Your task to perform on an android device: open chrome privacy settings Image 0: 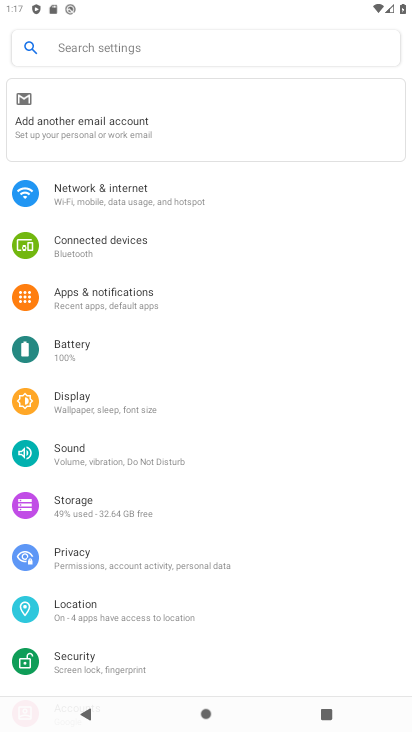
Step 0: click (61, 554)
Your task to perform on an android device: open chrome privacy settings Image 1: 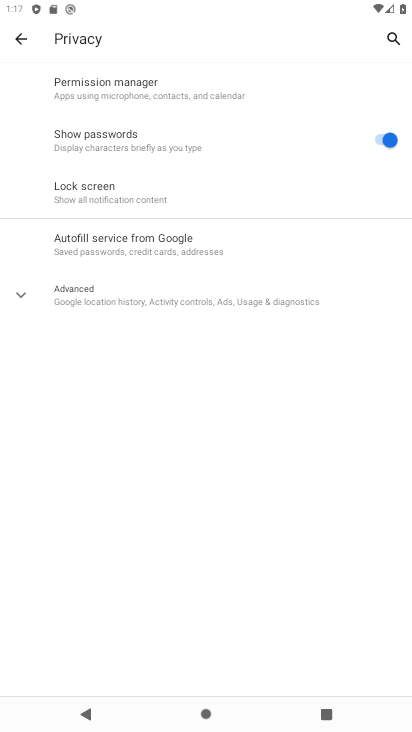
Step 1: press home button
Your task to perform on an android device: open chrome privacy settings Image 2: 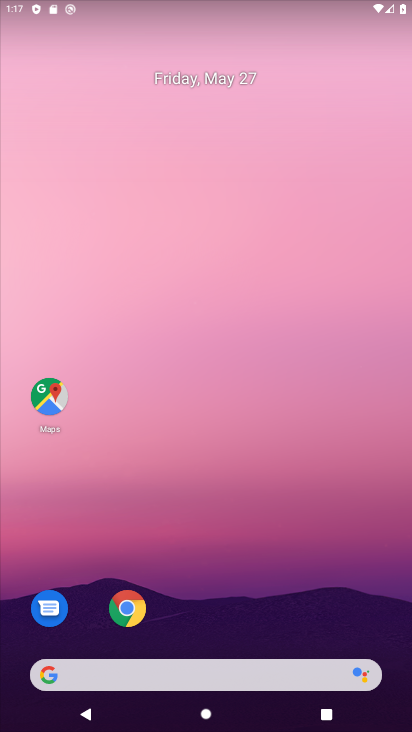
Step 2: click (128, 608)
Your task to perform on an android device: open chrome privacy settings Image 3: 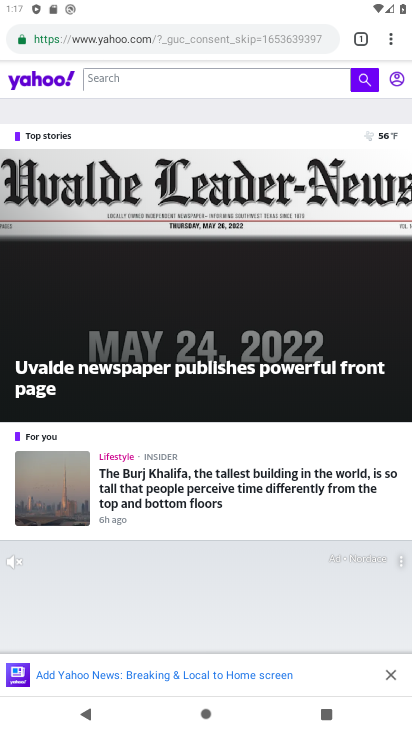
Step 3: click (388, 43)
Your task to perform on an android device: open chrome privacy settings Image 4: 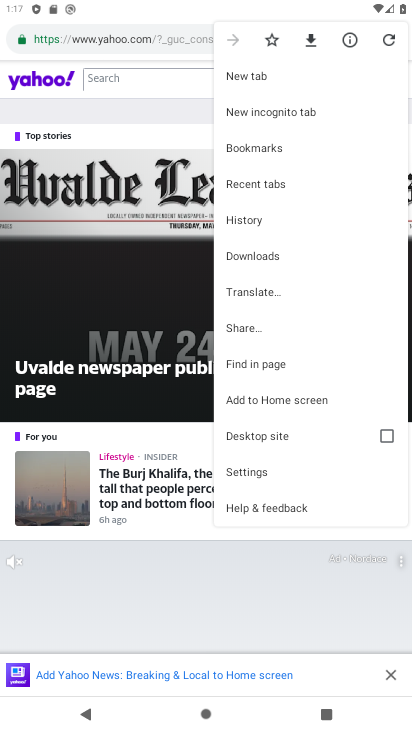
Step 4: drag from (312, 457) to (340, 151)
Your task to perform on an android device: open chrome privacy settings Image 5: 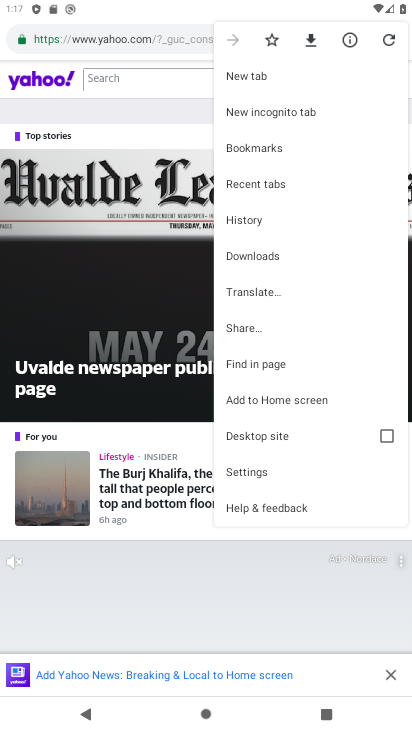
Step 5: click (237, 461)
Your task to perform on an android device: open chrome privacy settings Image 6: 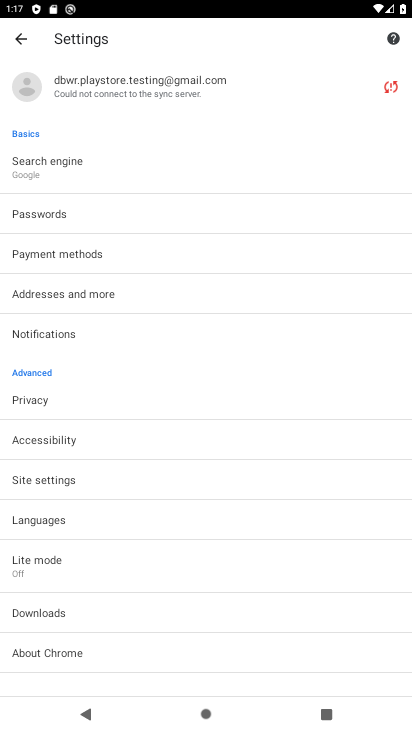
Step 6: click (35, 395)
Your task to perform on an android device: open chrome privacy settings Image 7: 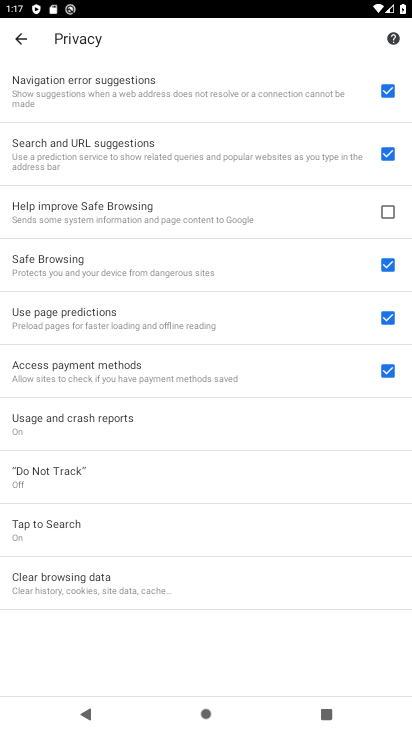
Step 7: task complete